Your task to perform on an android device: Go to notification settings Image 0: 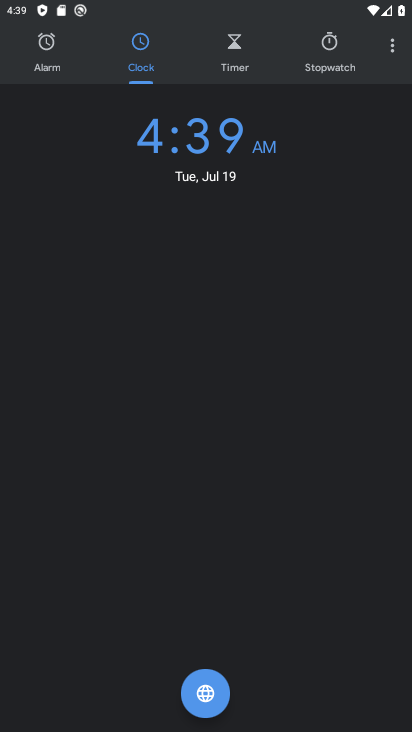
Step 0: press back button
Your task to perform on an android device: Go to notification settings Image 1: 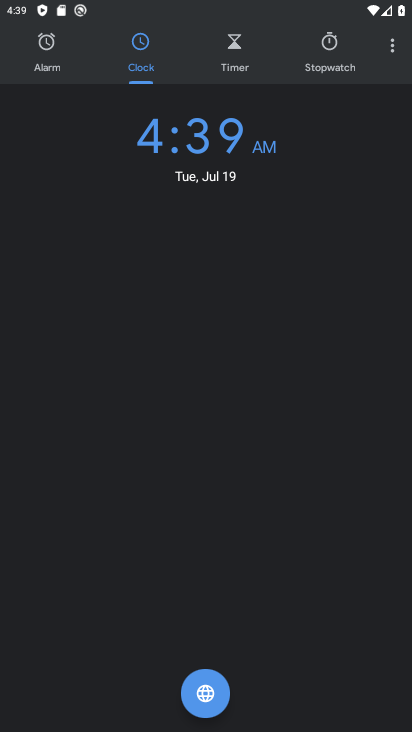
Step 1: press back button
Your task to perform on an android device: Go to notification settings Image 2: 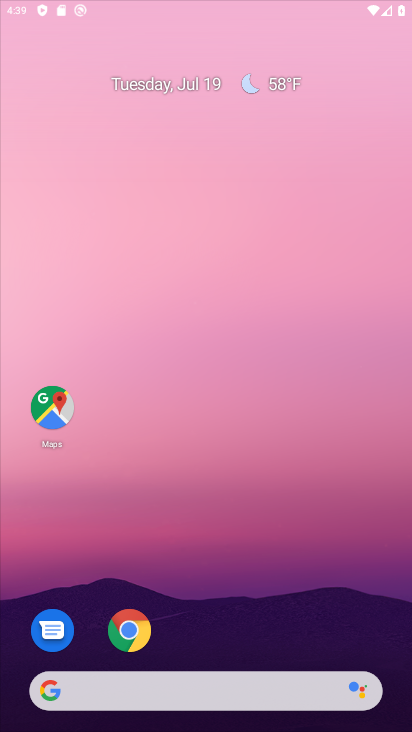
Step 2: press back button
Your task to perform on an android device: Go to notification settings Image 3: 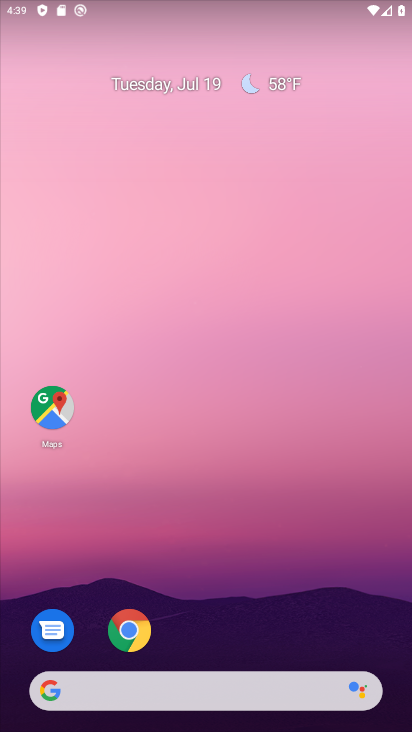
Step 3: drag from (235, 670) to (177, 110)
Your task to perform on an android device: Go to notification settings Image 4: 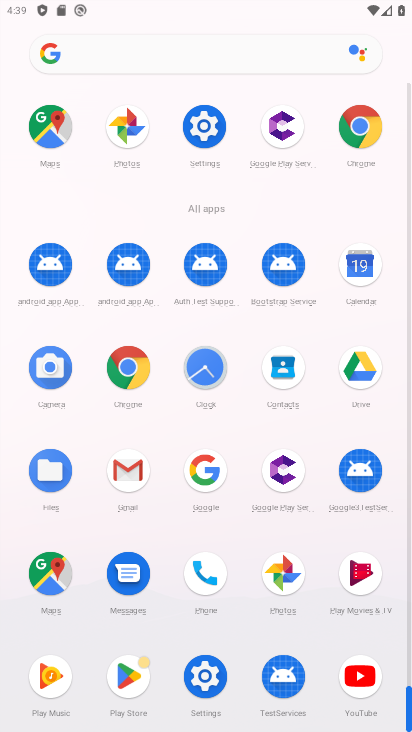
Step 4: drag from (195, 150) to (201, 105)
Your task to perform on an android device: Go to notification settings Image 5: 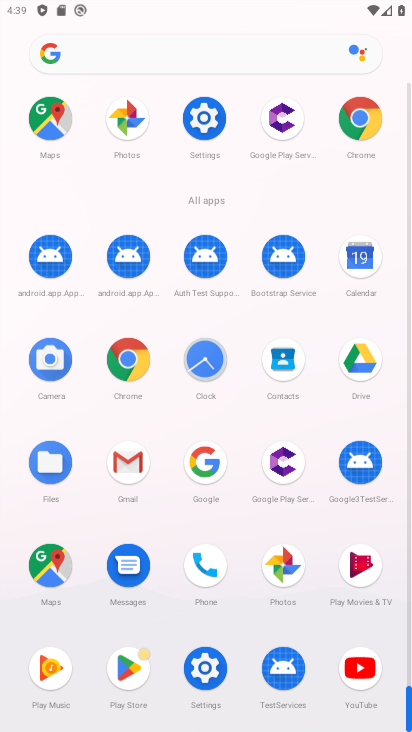
Step 5: click (201, 105)
Your task to perform on an android device: Go to notification settings Image 6: 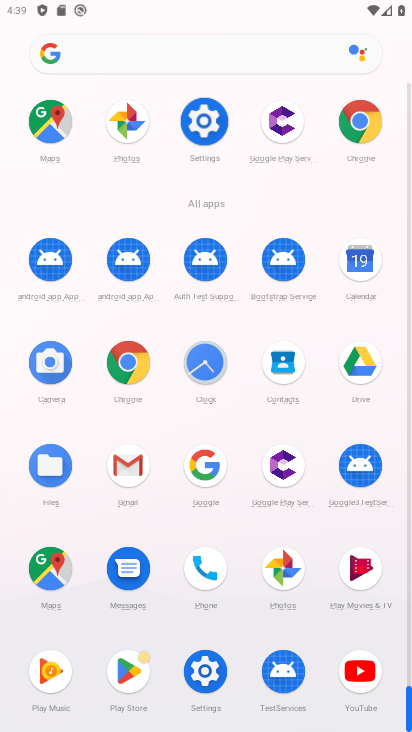
Step 6: click (194, 100)
Your task to perform on an android device: Go to notification settings Image 7: 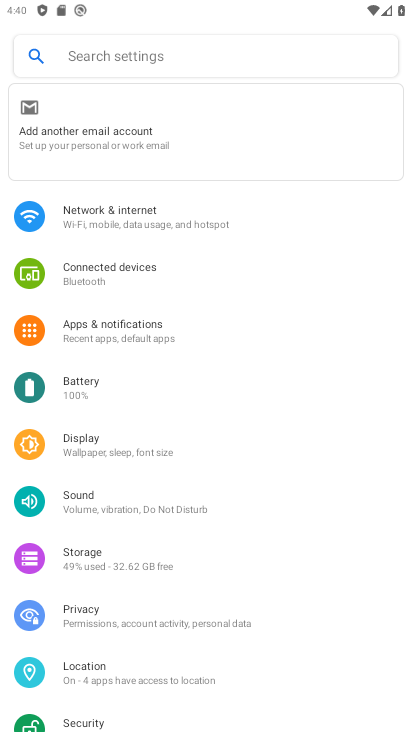
Step 7: click (117, 331)
Your task to perform on an android device: Go to notification settings Image 8: 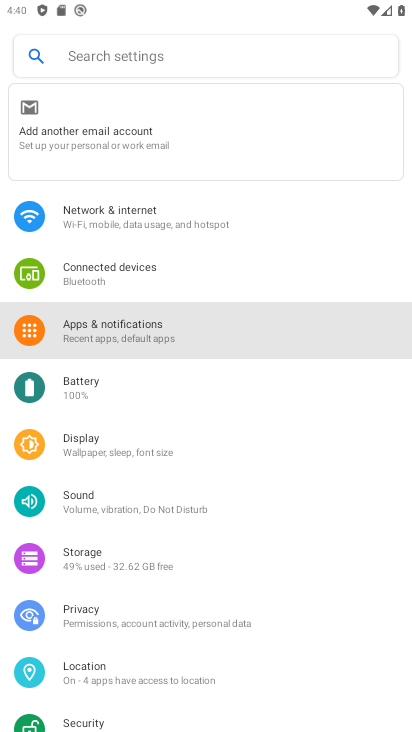
Step 8: click (117, 331)
Your task to perform on an android device: Go to notification settings Image 9: 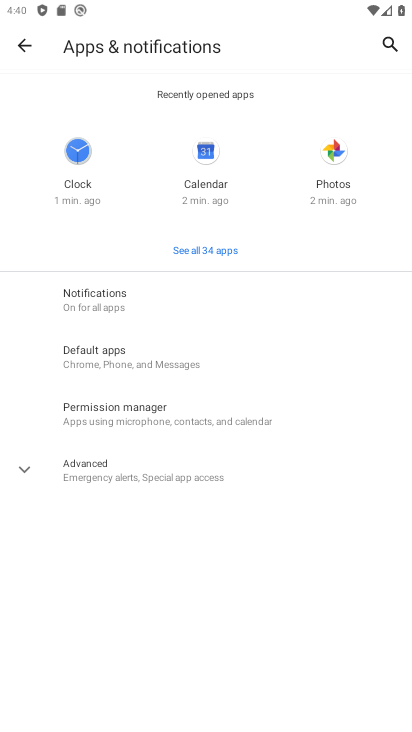
Step 9: click (88, 291)
Your task to perform on an android device: Go to notification settings Image 10: 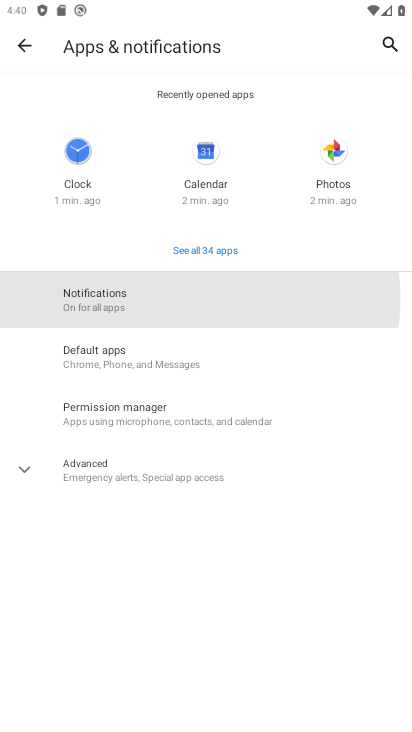
Step 10: click (88, 292)
Your task to perform on an android device: Go to notification settings Image 11: 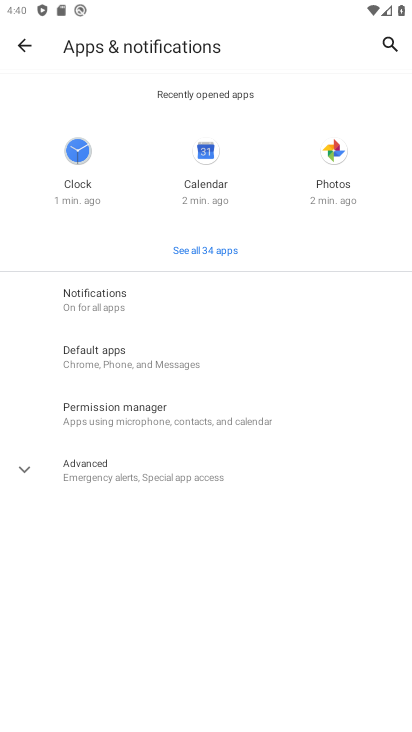
Step 11: click (90, 293)
Your task to perform on an android device: Go to notification settings Image 12: 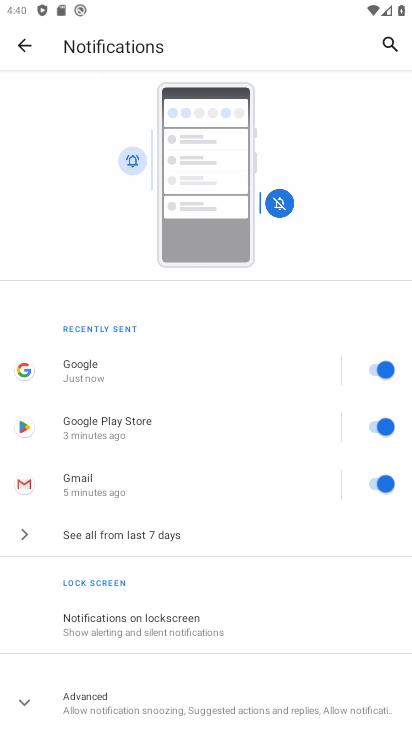
Step 12: task complete